Your task to perform on an android device: turn on wifi Image 0: 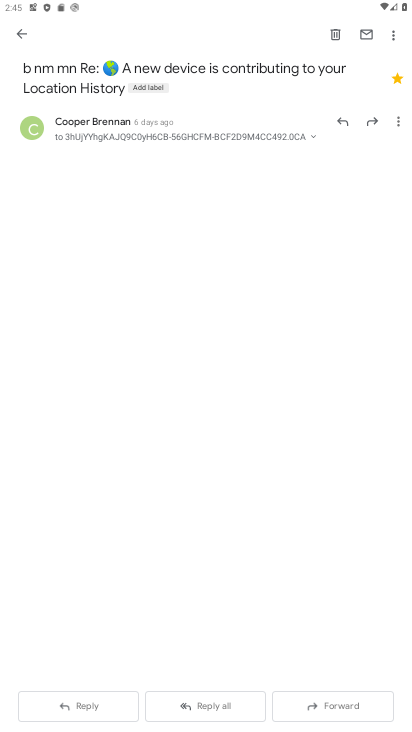
Step 0: press home button
Your task to perform on an android device: turn on wifi Image 1: 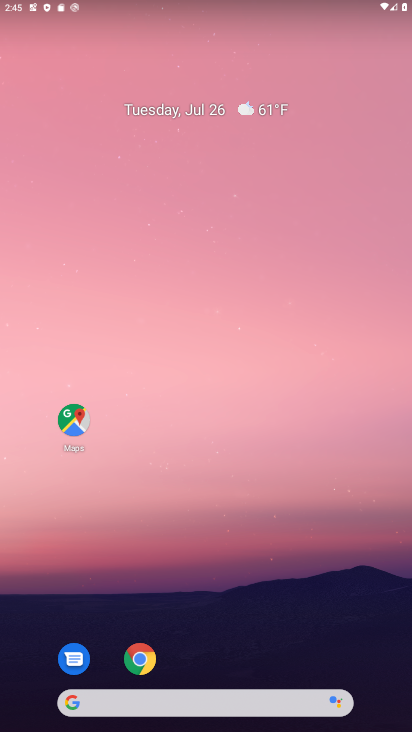
Step 1: drag from (192, 576) to (191, 109)
Your task to perform on an android device: turn on wifi Image 2: 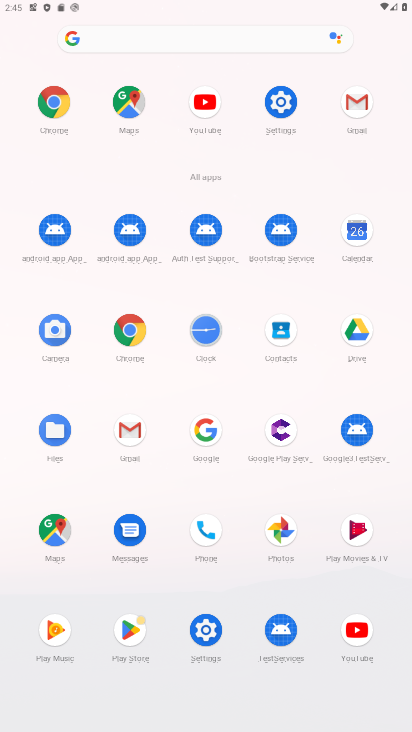
Step 2: click (277, 114)
Your task to perform on an android device: turn on wifi Image 3: 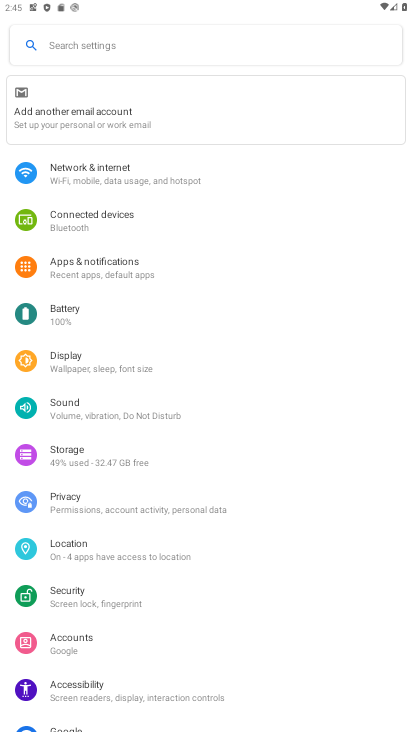
Step 3: click (106, 166)
Your task to perform on an android device: turn on wifi Image 4: 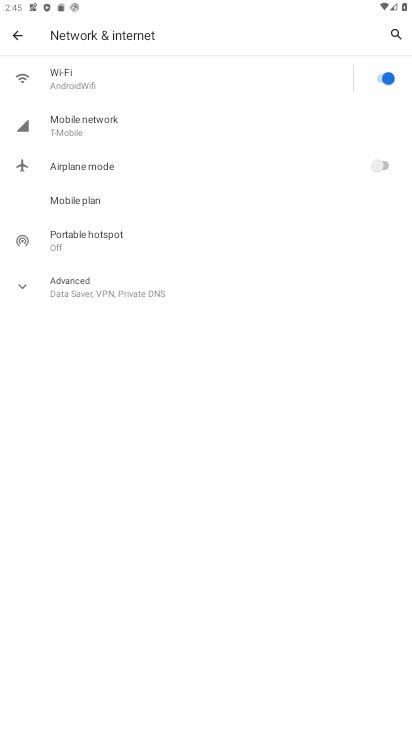
Step 4: task complete